Your task to perform on an android device: choose inbox layout in the gmail app Image 0: 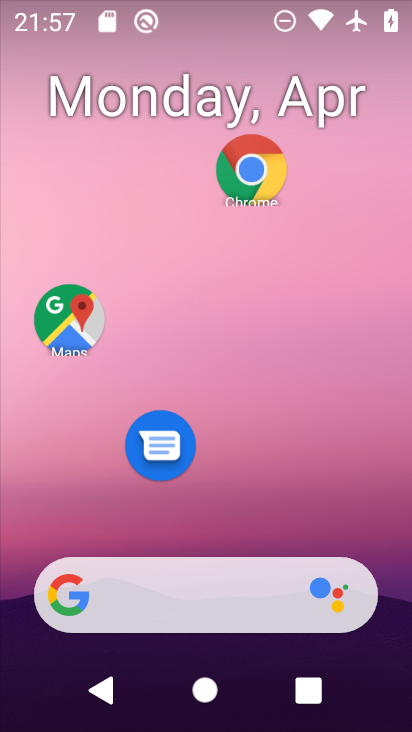
Step 0: drag from (198, 530) to (194, 148)
Your task to perform on an android device: choose inbox layout in the gmail app Image 1: 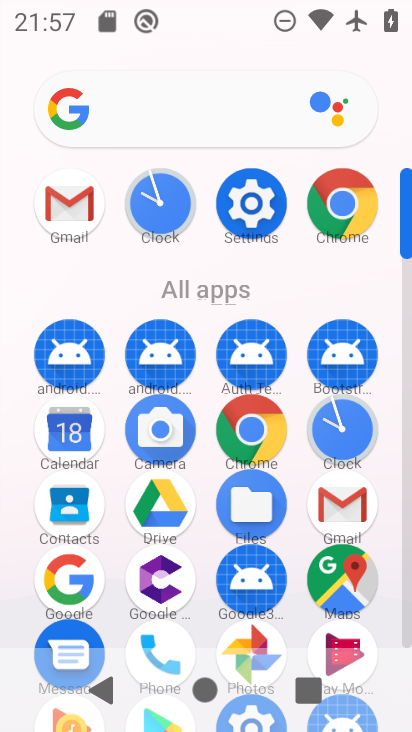
Step 1: click (94, 191)
Your task to perform on an android device: choose inbox layout in the gmail app Image 2: 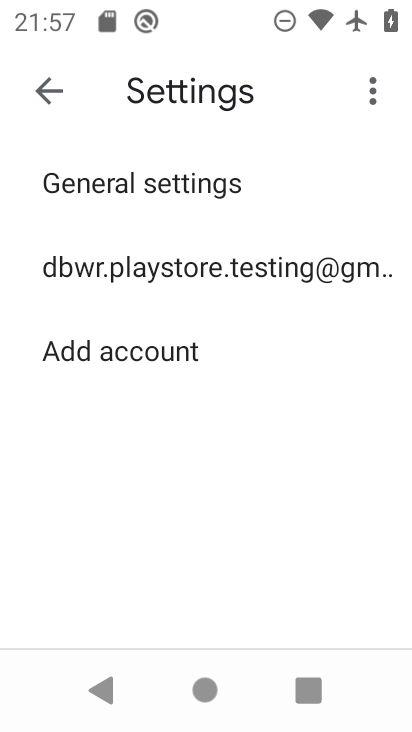
Step 2: click (116, 277)
Your task to perform on an android device: choose inbox layout in the gmail app Image 3: 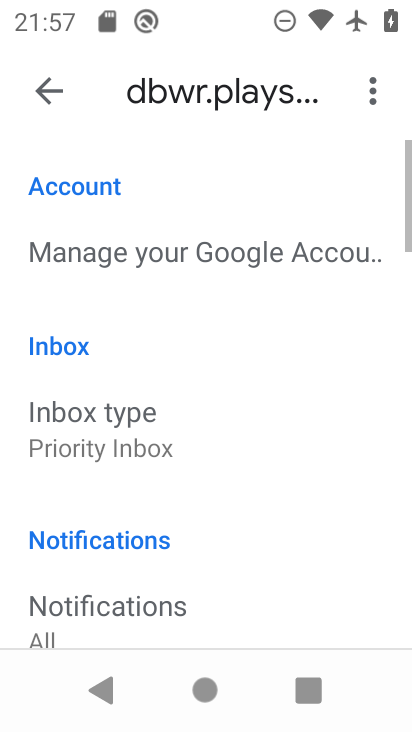
Step 3: drag from (247, 609) to (253, 206)
Your task to perform on an android device: choose inbox layout in the gmail app Image 4: 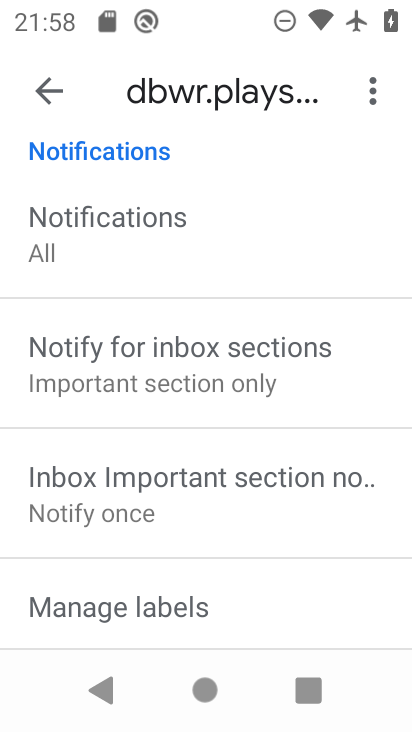
Step 4: drag from (176, 232) to (201, 557)
Your task to perform on an android device: choose inbox layout in the gmail app Image 5: 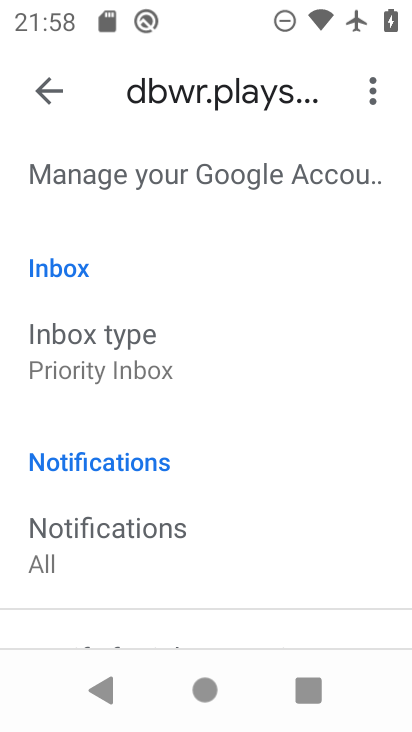
Step 5: drag from (208, 275) to (223, 554)
Your task to perform on an android device: choose inbox layout in the gmail app Image 6: 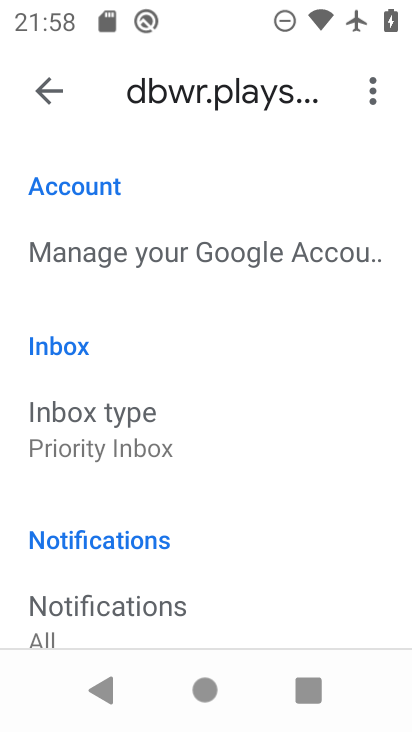
Step 6: click (167, 427)
Your task to perform on an android device: choose inbox layout in the gmail app Image 7: 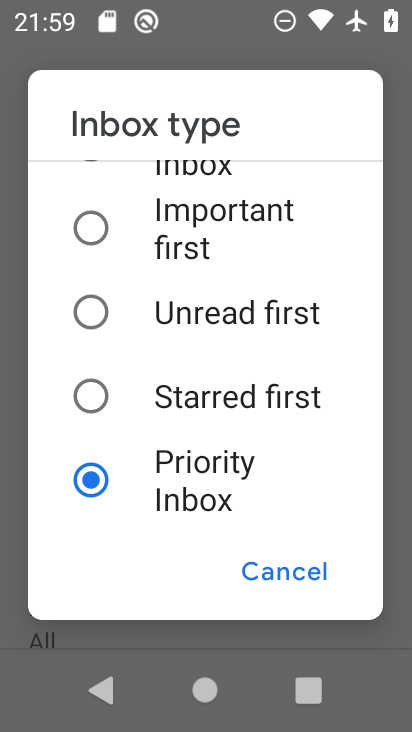
Step 7: task complete